Your task to perform on an android device: turn on airplane mode Image 0: 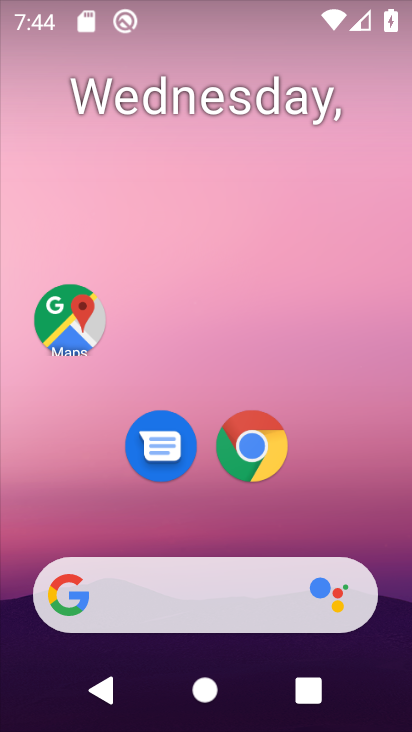
Step 0: drag from (205, 532) to (243, 50)
Your task to perform on an android device: turn on airplane mode Image 1: 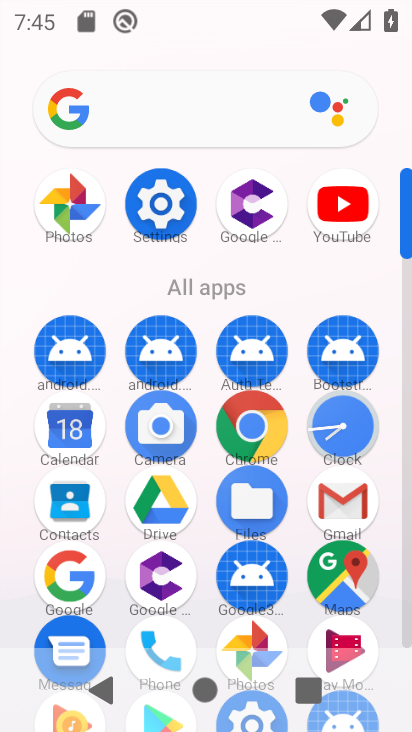
Step 1: drag from (279, 4) to (284, 592)
Your task to perform on an android device: turn on airplane mode Image 2: 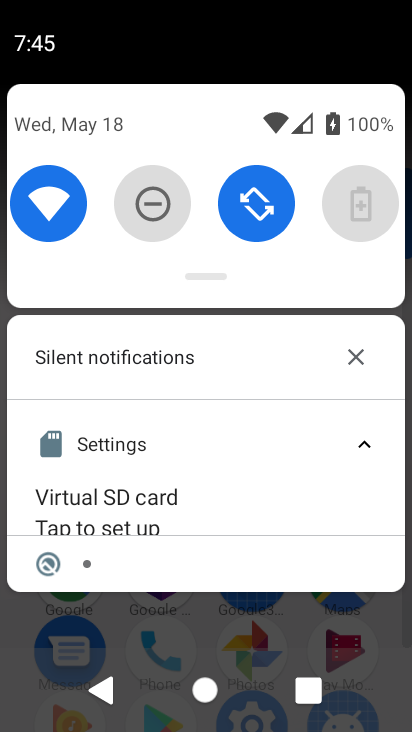
Step 2: drag from (229, 284) to (248, 624)
Your task to perform on an android device: turn on airplane mode Image 3: 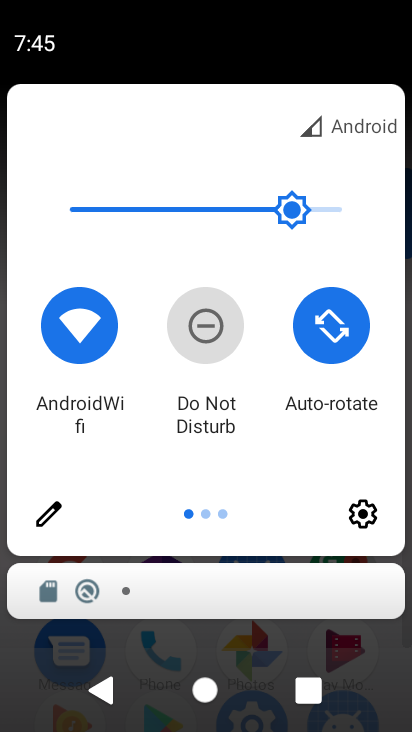
Step 3: drag from (339, 363) to (5, 359)
Your task to perform on an android device: turn on airplane mode Image 4: 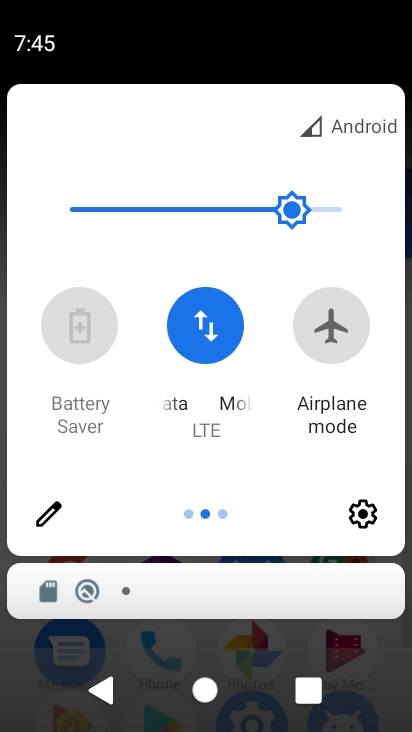
Step 4: click (330, 335)
Your task to perform on an android device: turn on airplane mode Image 5: 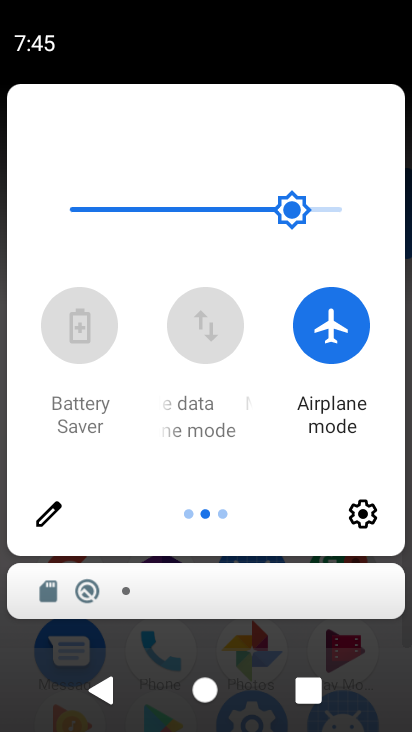
Step 5: task complete